Your task to perform on an android device: Check the weather Image 0: 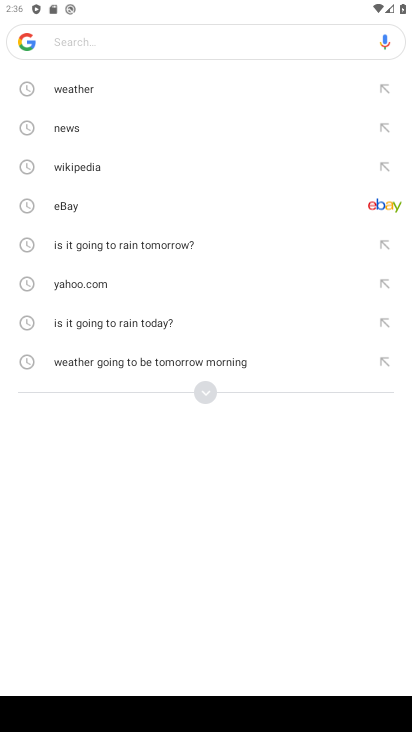
Step 0: click (78, 87)
Your task to perform on an android device: Check the weather Image 1: 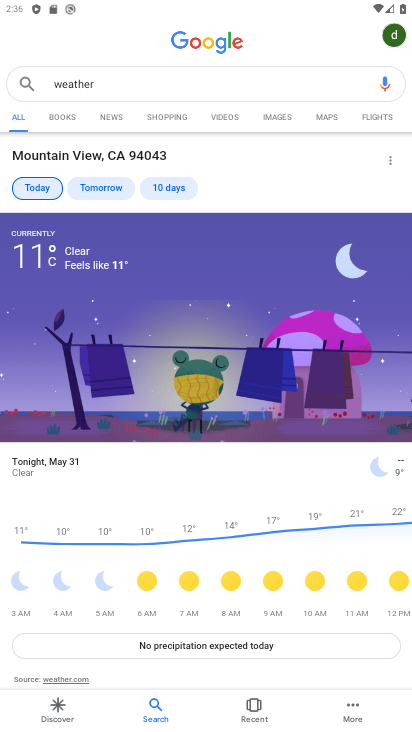
Step 1: task complete